Your task to perform on an android device: check android version Image 0: 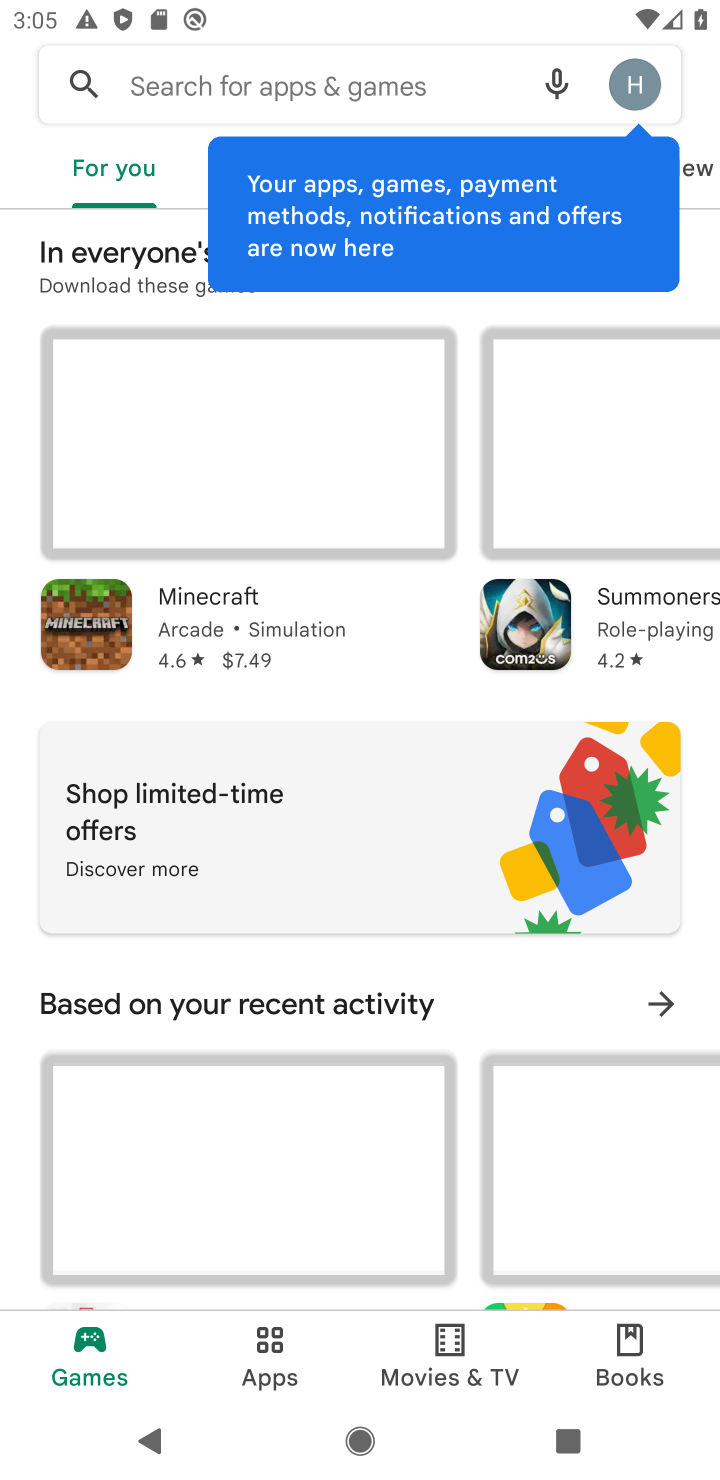
Step 0: press home button
Your task to perform on an android device: check android version Image 1: 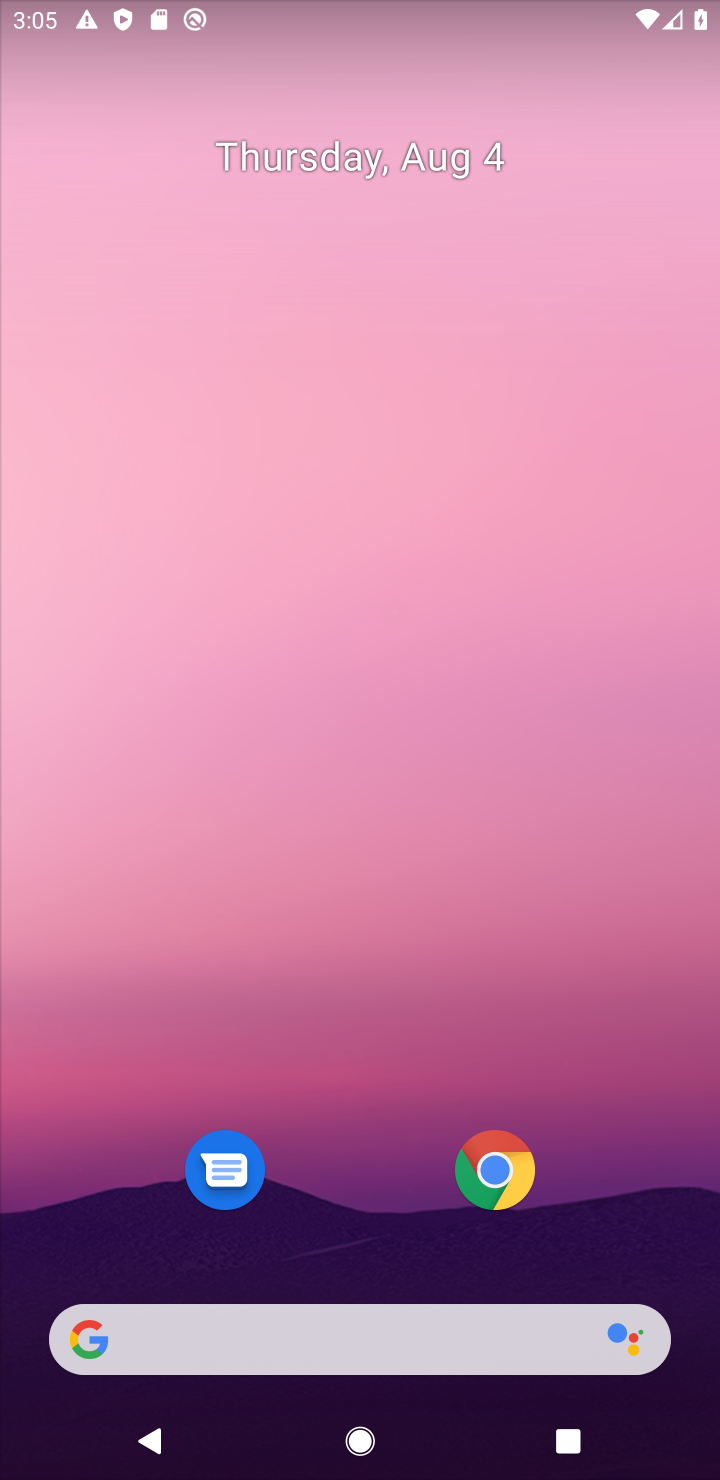
Step 1: drag from (601, 1137) to (512, 192)
Your task to perform on an android device: check android version Image 2: 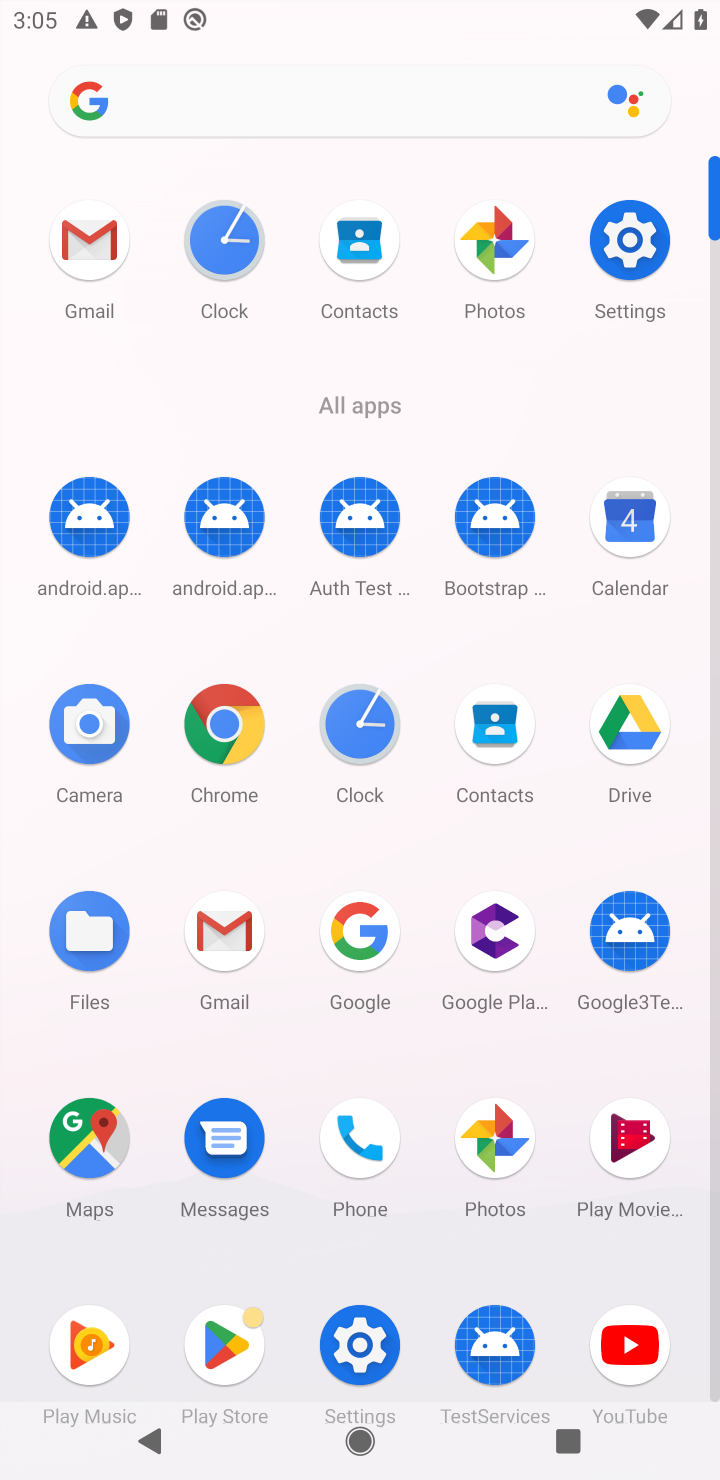
Step 2: click (357, 1344)
Your task to perform on an android device: check android version Image 3: 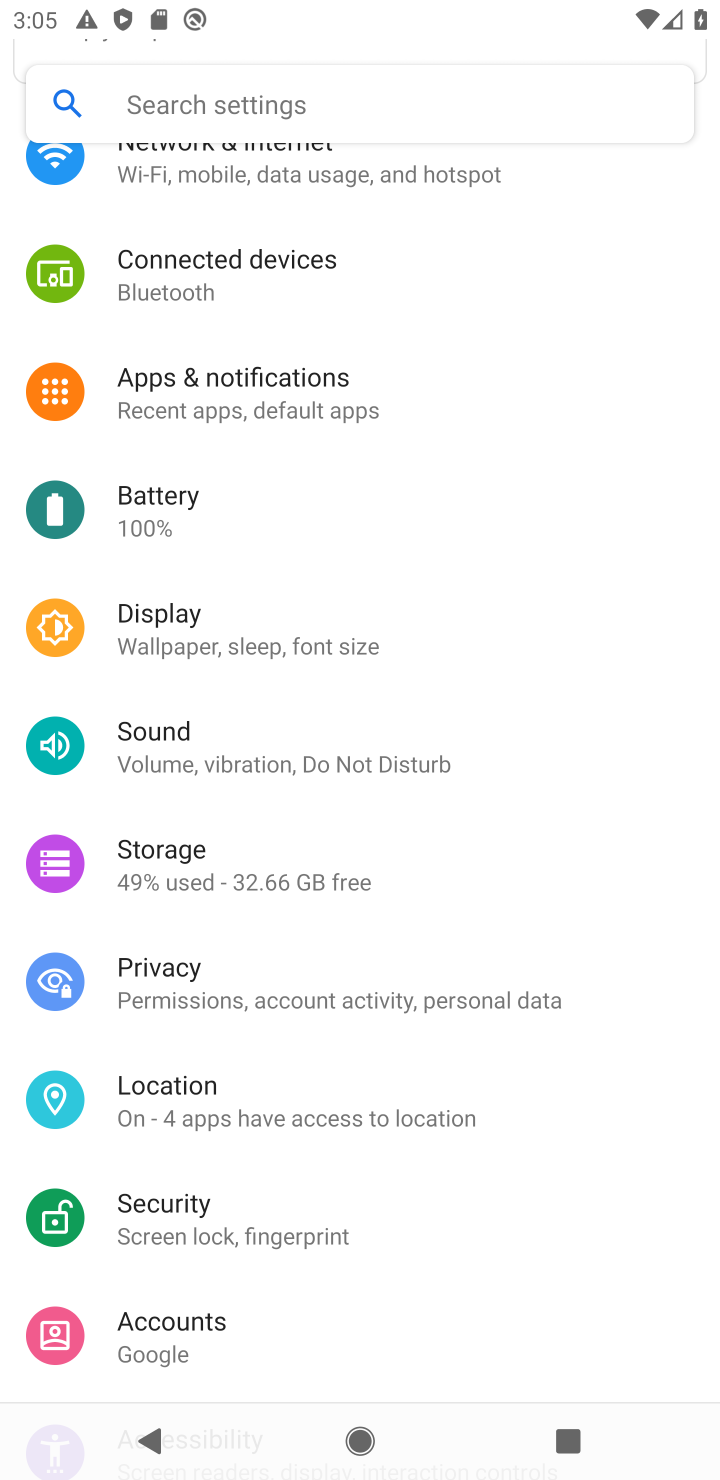
Step 3: drag from (579, 1294) to (549, 400)
Your task to perform on an android device: check android version Image 4: 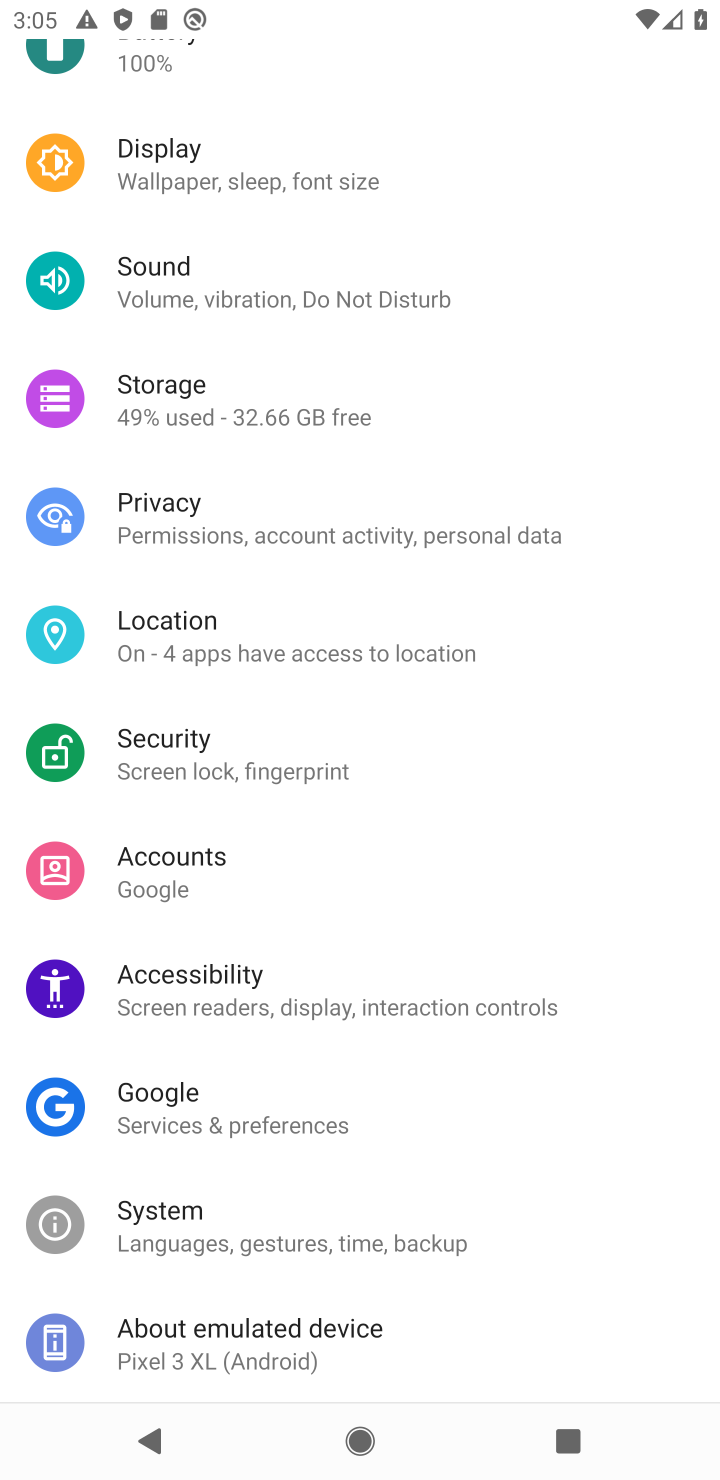
Step 4: click (161, 1334)
Your task to perform on an android device: check android version Image 5: 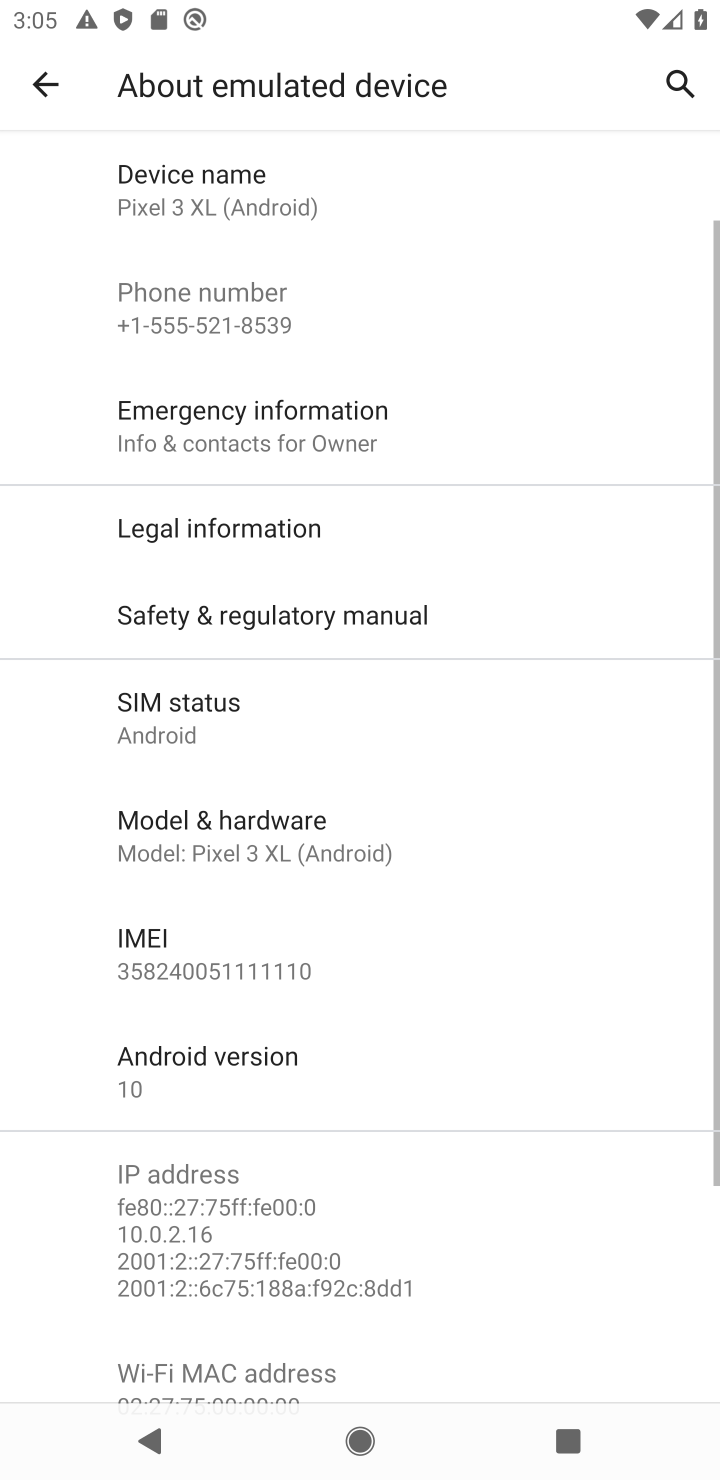
Step 5: click (188, 1060)
Your task to perform on an android device: check android version Image 6: 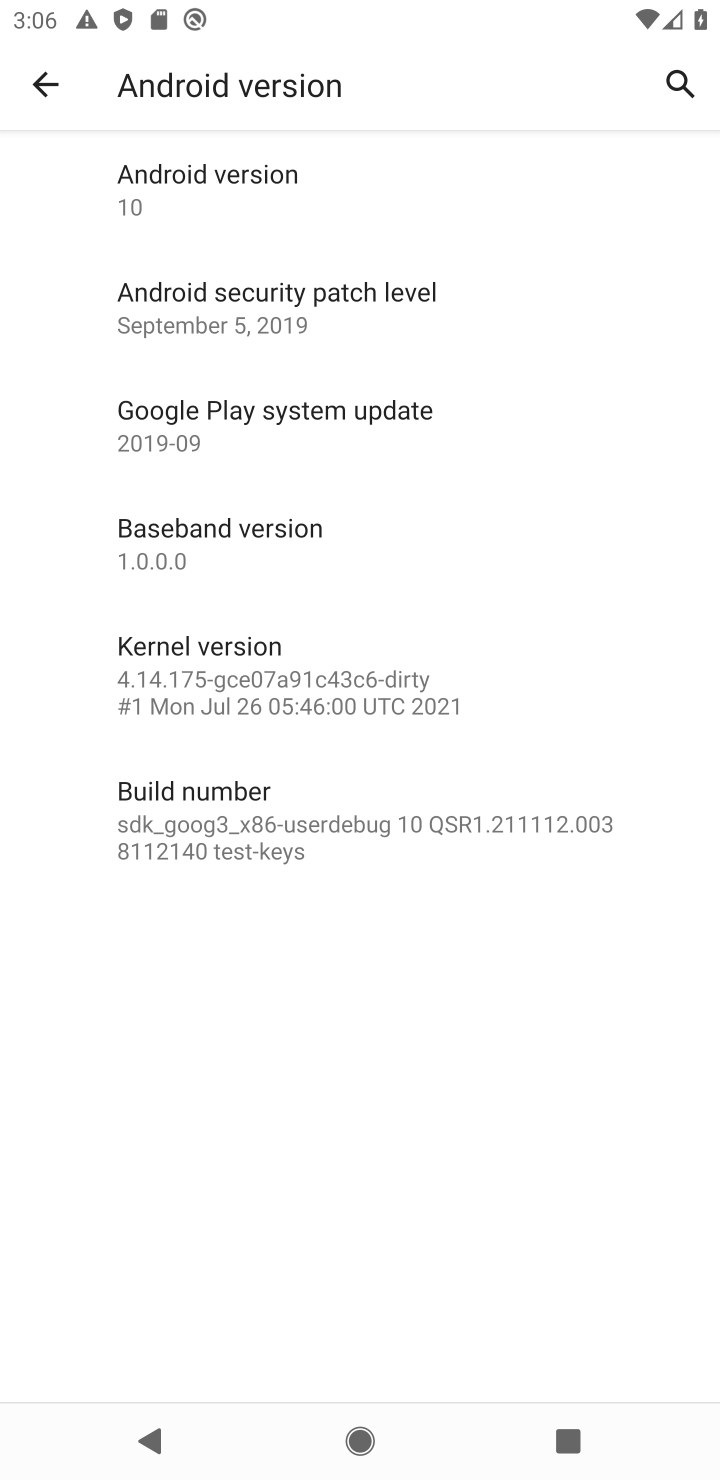
Step 6: click (166, 171)
Your task to perform on an android device: check android version Image 7: 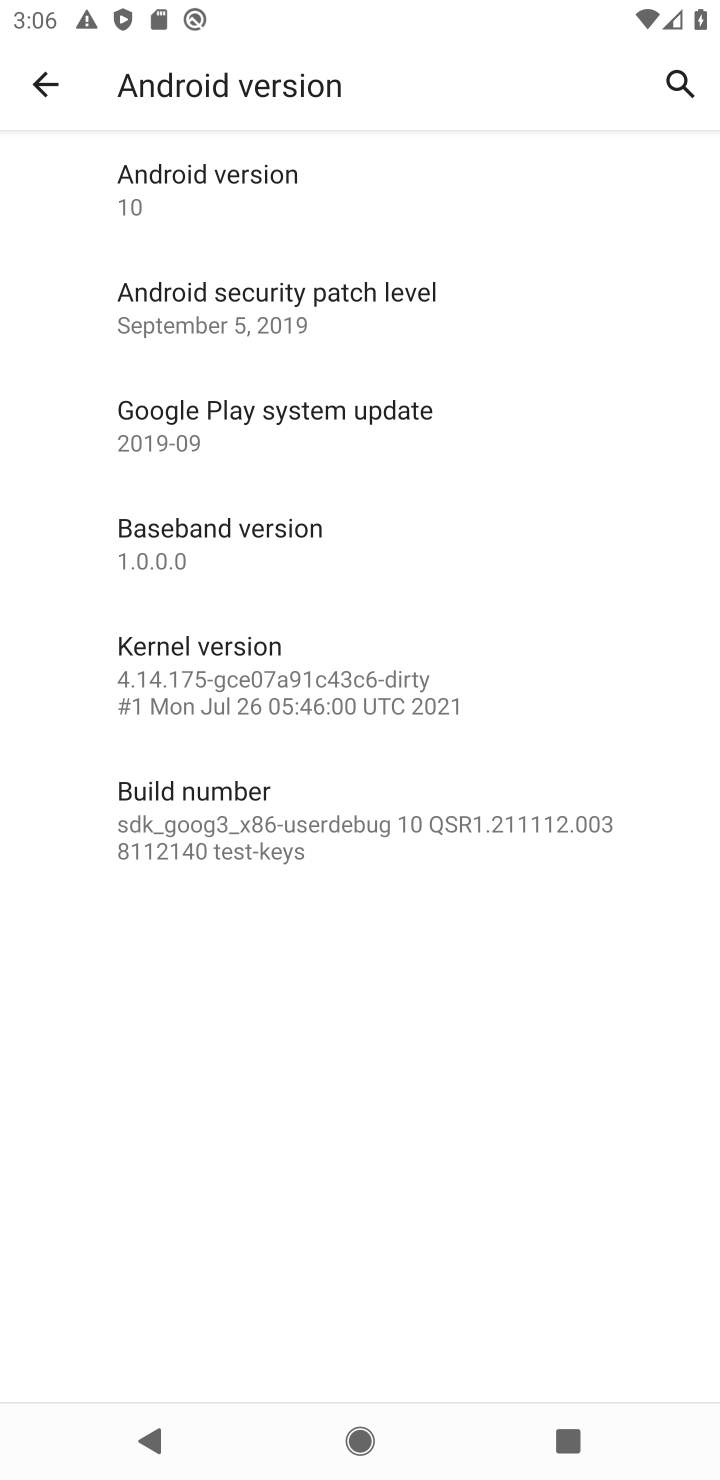
Step 7: task complete